Your task to perform on an android device: Open the music app Image 0: 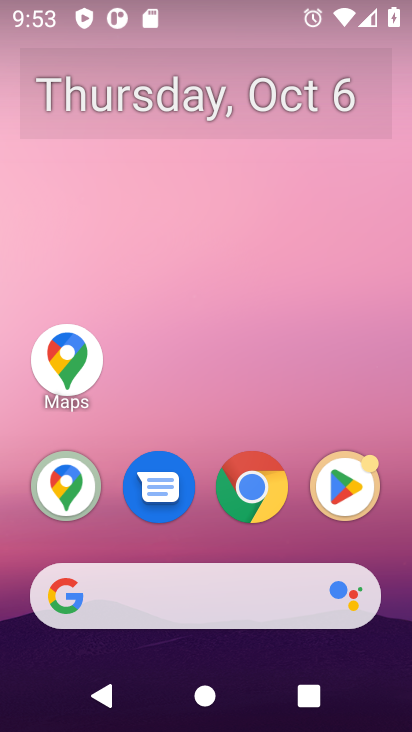
Step 0: drag from (248, 555) to (283, 102)
Your task to perform on an android device: Open the music app Image 1: 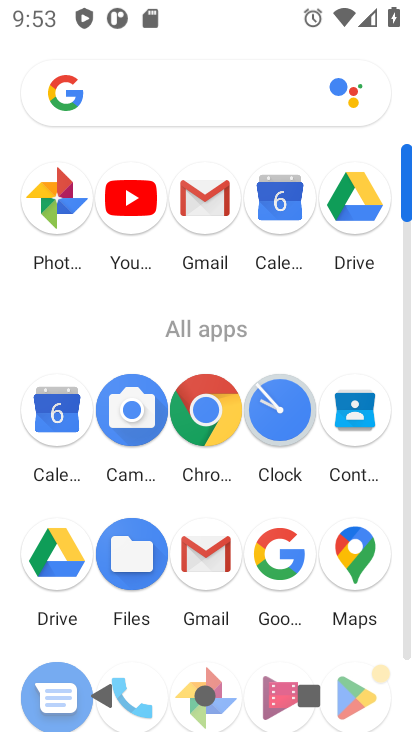
Step 1: drag from (315, 483) to (333, 244)
Your task to perform on an android device: Open the music app Image 2: 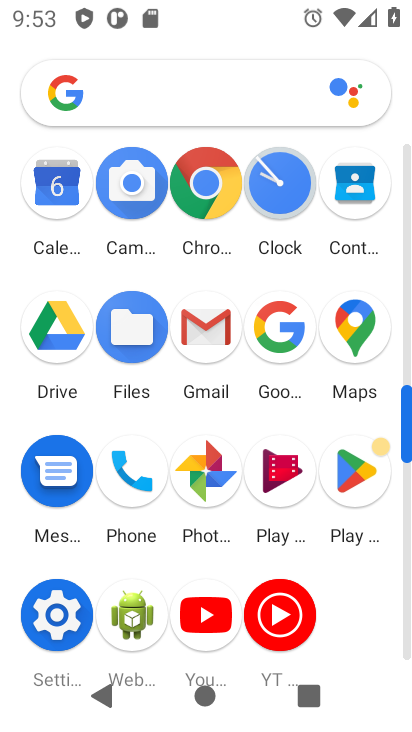
Step 2: click (366, 484)
Your task to perform on an android device: Open the music app Image 3: 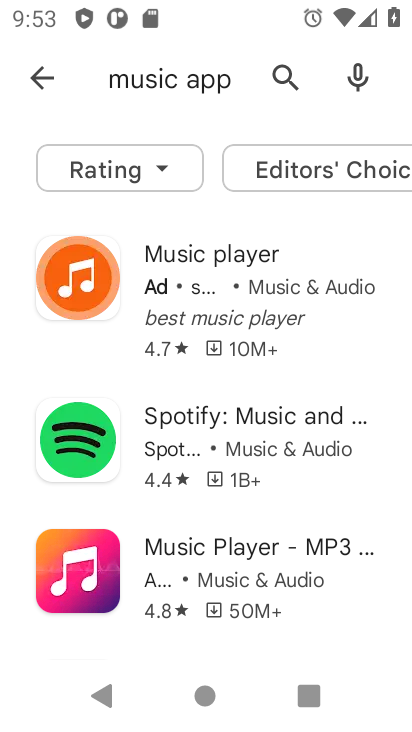
Step 3: click (175, 269)
Your task to perform on an android device: Open the music app Image 4: 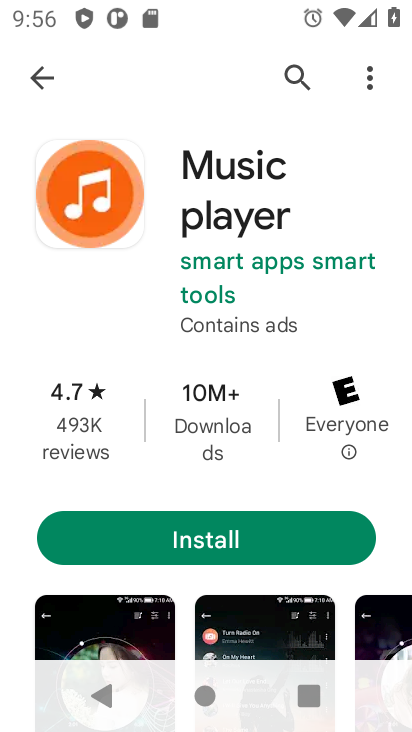
Step 4: task complete